Your task to perform on an android device: turn off translation in the chrome app Image 0: 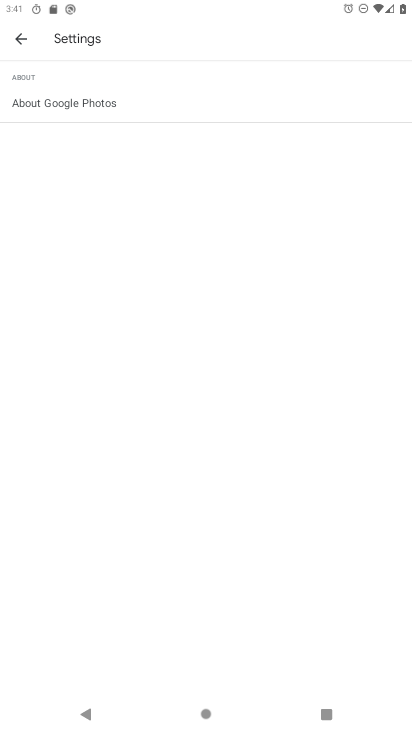
Step 0: press home button
Your task to perform on an android device: turn off translation in the chrome app Image 1: 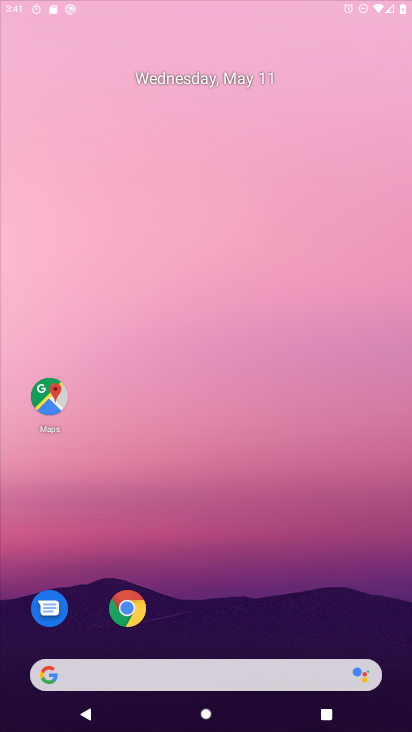
Step 1: drag from (226, 658) to (243, 146)
Your task to perform on an android device: turn off translation in the chrome app Image 2: 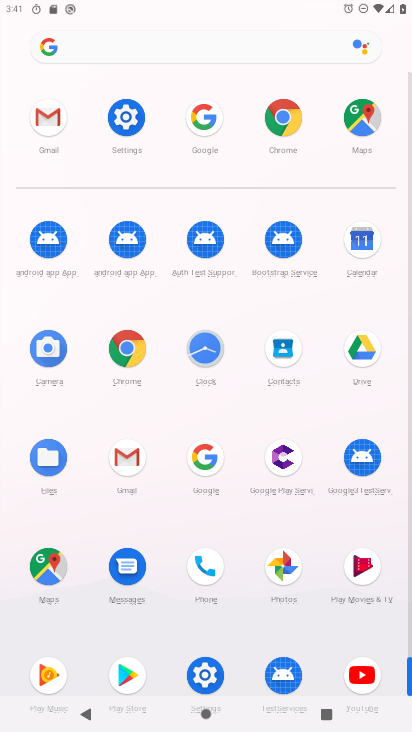
Step 2: click (275, 144)
Your task to perform on an android device: turn off translation in the chrome app Image 3: 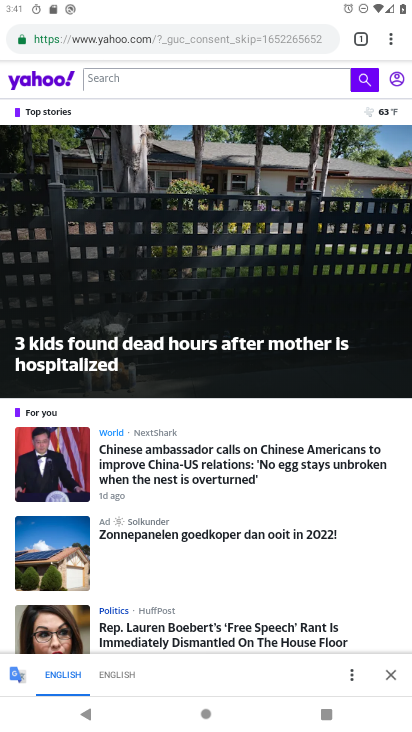
Step 3: task complete